Your task to perform on an android device: turn on translation in the chrome app Image 0: 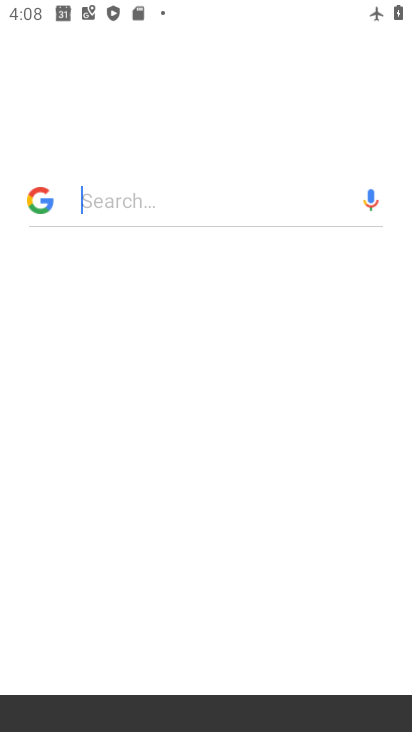
Step 0: drag from (222, 624) to (167, 165)
Your task to perform on an android device: turn on translation in the chrome app Image 1: 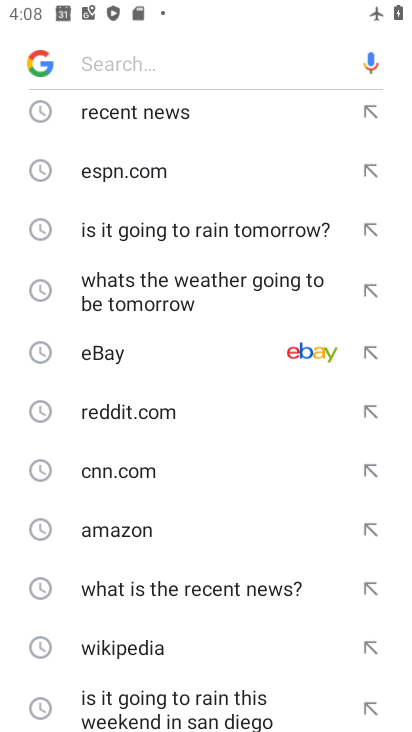
Step 1: press back button
Your task to perform on an android device: turn on translation in the chrome app Image 2: 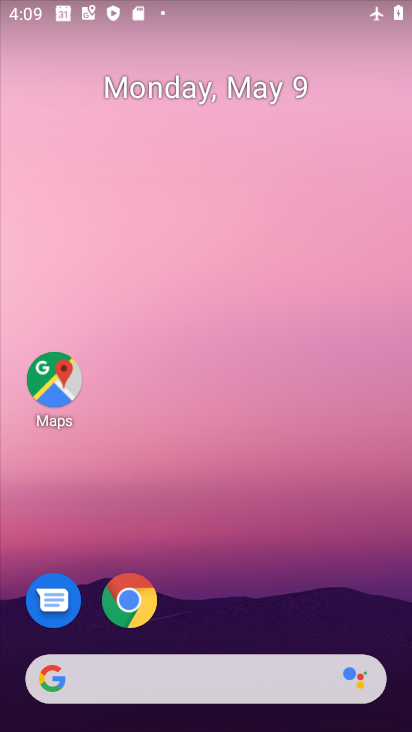
Step 2: drag from (249, 662) to (219, 38)
Your task to perform on an android device: turn on translation in the chrome app Image 3: 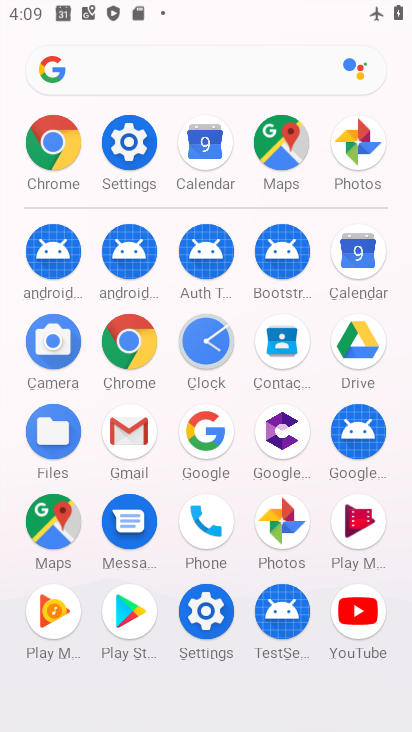
Step 3: click (121, 343)
Your task to perform on an android device: turn on translation in the chrome app Image 4: 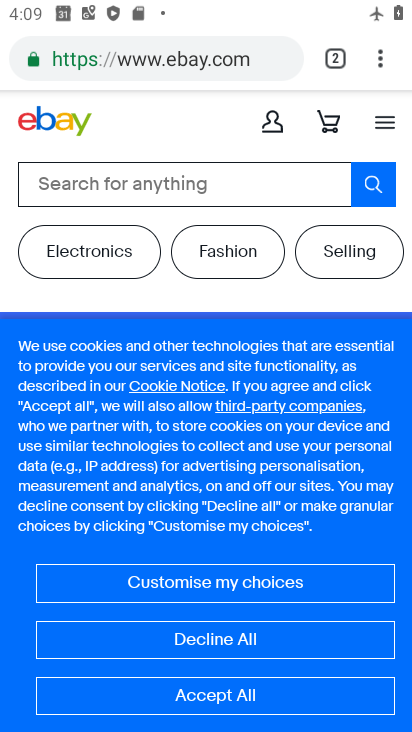
Step 4: drag from (390, 51) to (238, 642)
Your task to perform on an android device: turn on translation in the chrome app Image 5: 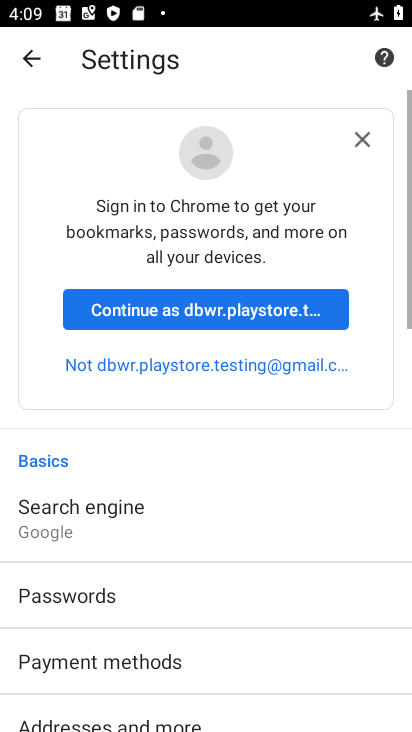
Step 5: drag from (217, 664) to (317, 12)
Your task to perform on an android device: turn on translation in the chrome app Image 6: 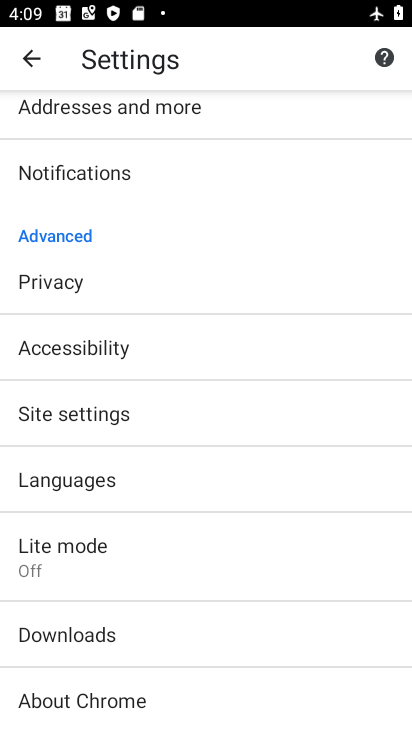
Step 6: click (128, 472)
Your task to perform on an android device: turn on translation in the chrome app Image 7: 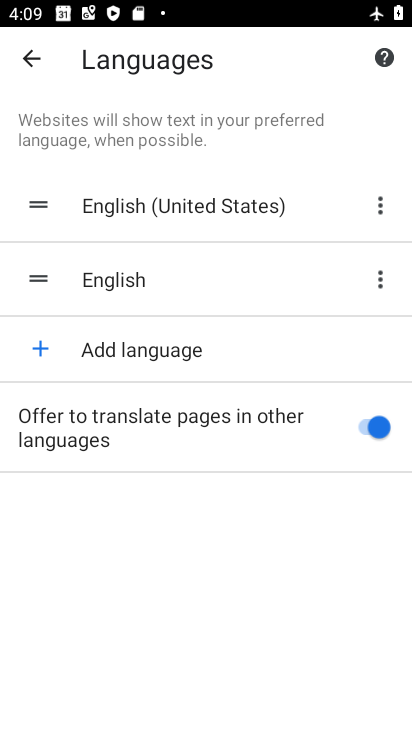
Step 7: task complete